Your task to perform on an android device: change text size in settings app Image 0: 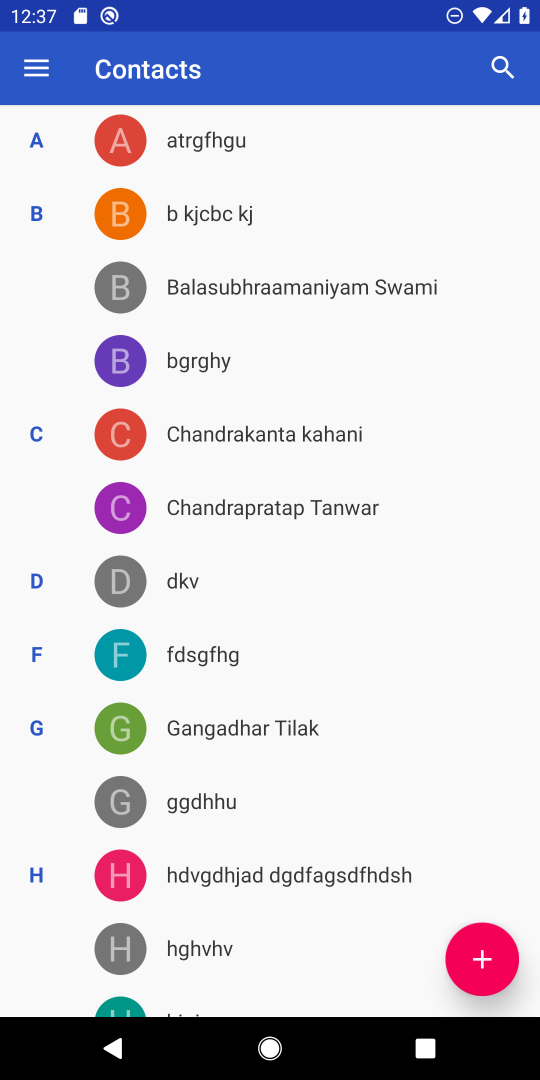
Step 0: press back button
Your task to perform on an android device: change text size in settings app Image 1: 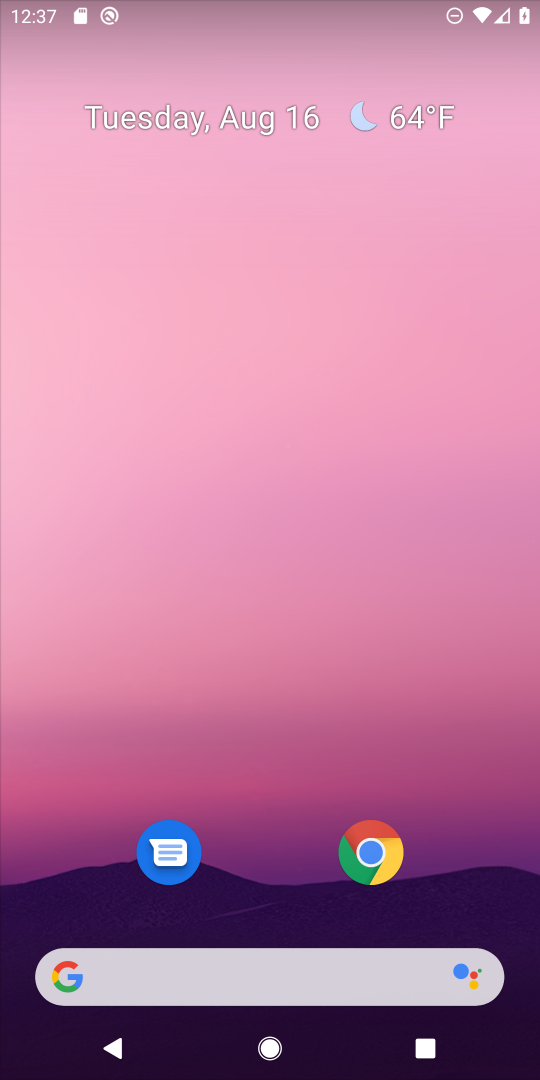
Step 1: drag from (226, 865) to (376, 23)
Your task to perform on an android device: change text size in settings app Image 2: 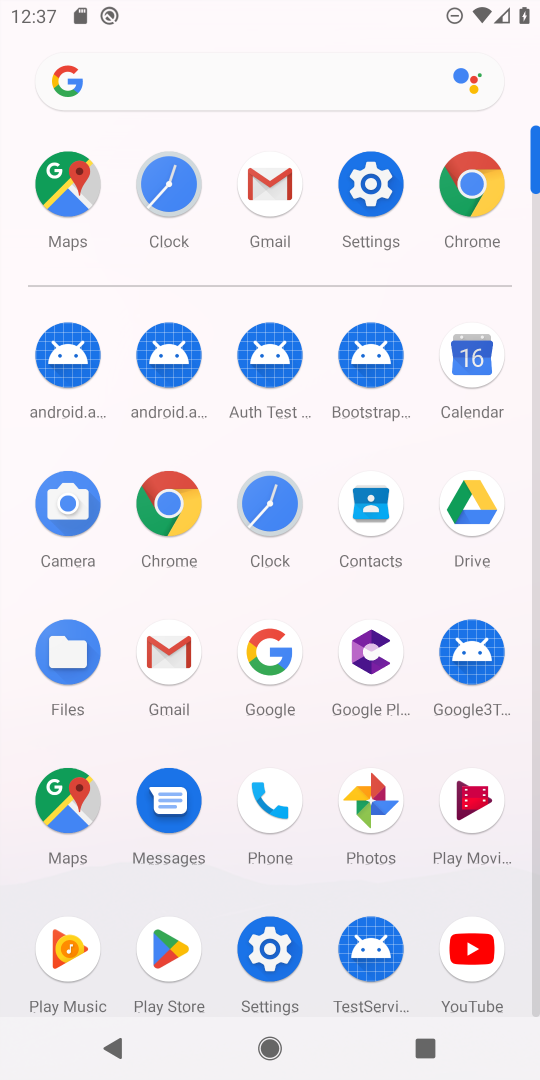
Step 2: click (352, 178)
Your task to perform on an android device: change text size in settings app Image 3: 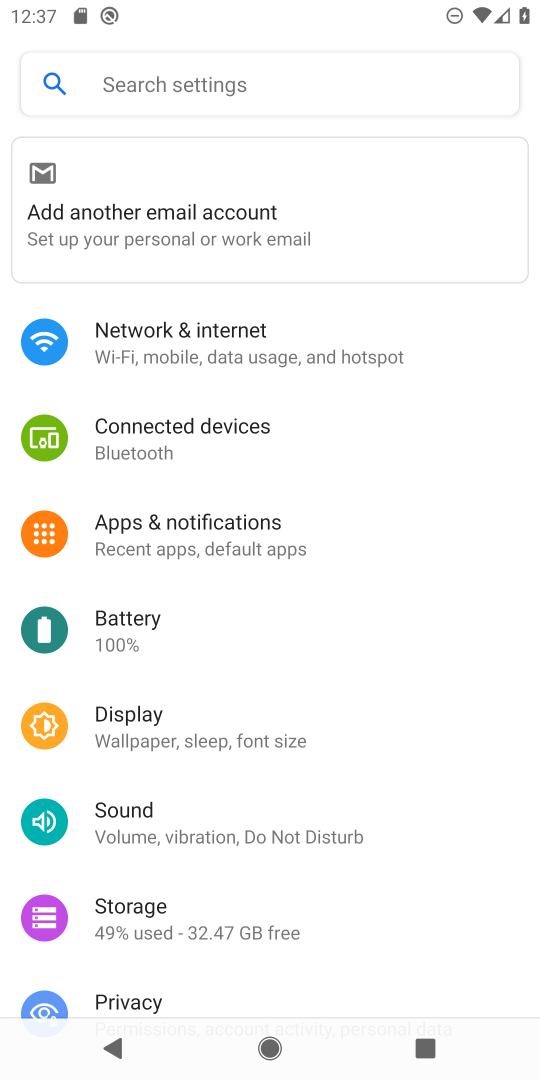
Step 3: click (234, 83)
Your task to perform on an android device: change text size in settings app Image 4: 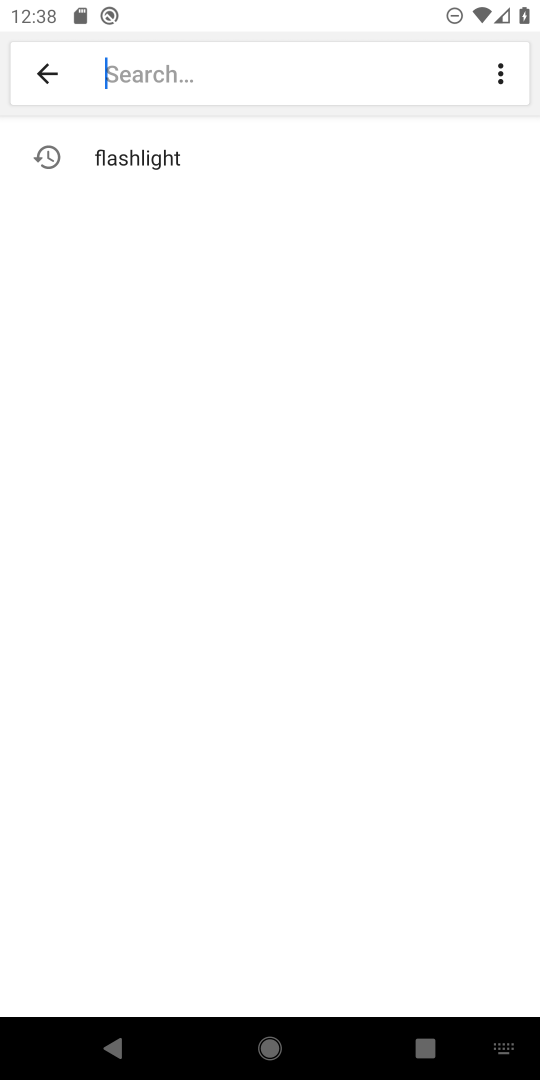
Step 4: type "text size"
Your task to perform on an android device: change text size in settings app Image 5: 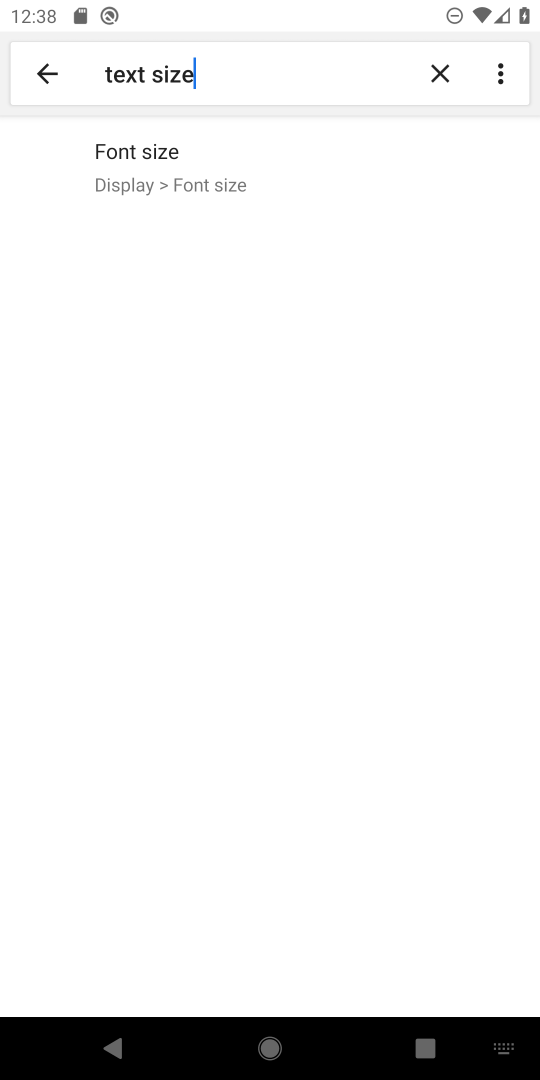
Step 5: click (143, 164)
Your task to perform on an android device: change text size in settings app Image 6: 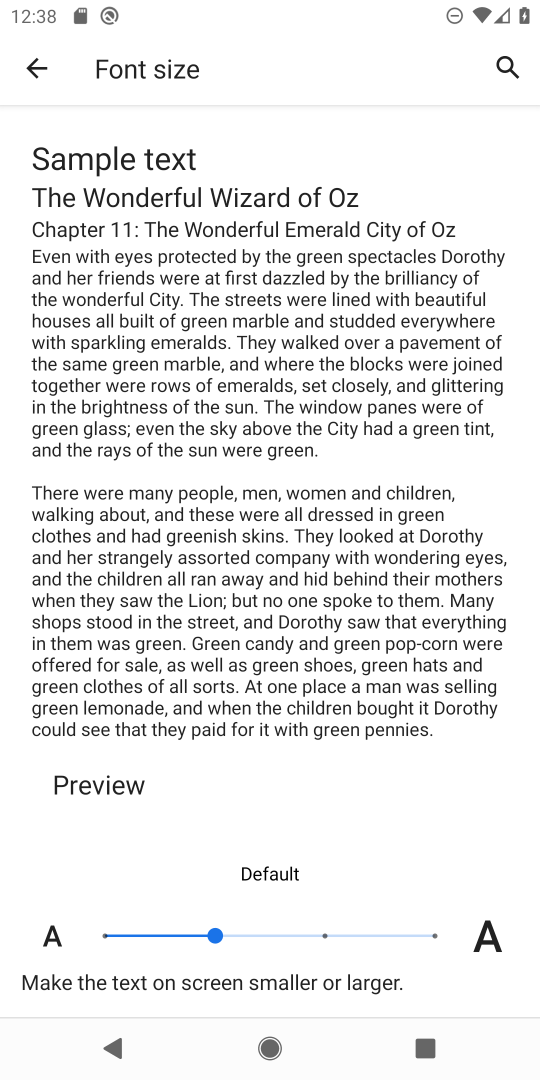
Step 6: task complete